Your task to perform on an android device: Show me popular games on the Play Store Image 0: 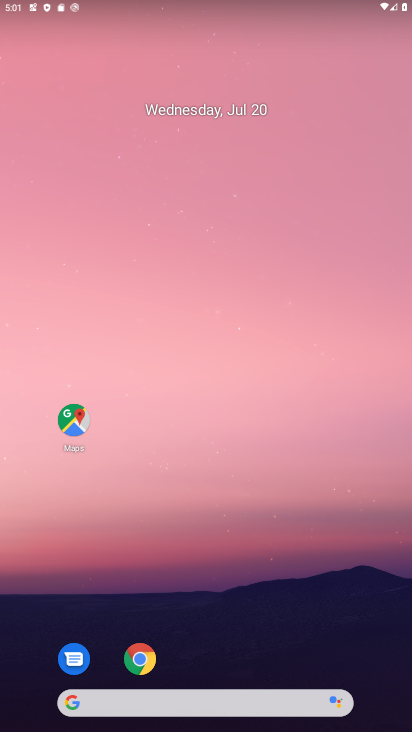
Step 0: drag from (231, 676) to (224, 320)
Your task to perform on an android device: Show me popular games on the Play Store Image 1: 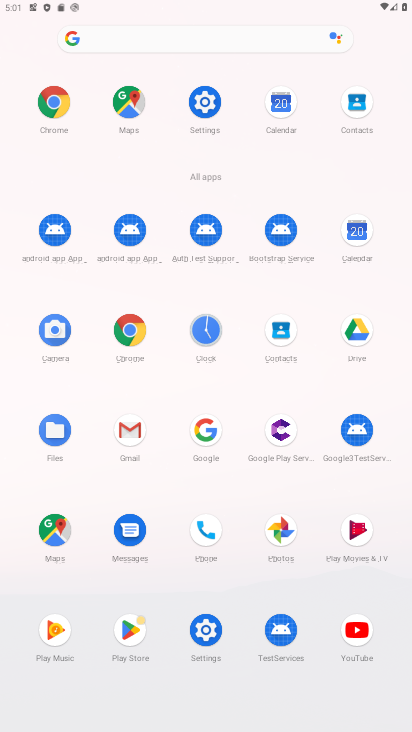
Step 1: click (137, 630)
Your task to perform on an android device: Show me popular games on the Play Store Image 2: 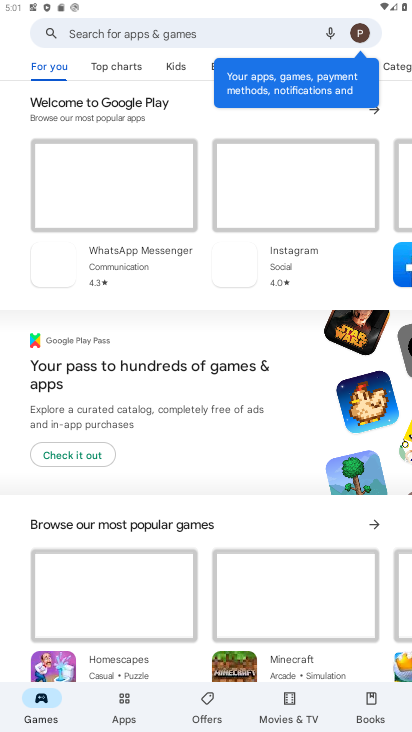
Step 2: click (111, 37)
Your task to perform on an android device: Show me popular games on the Play Store Image 3: 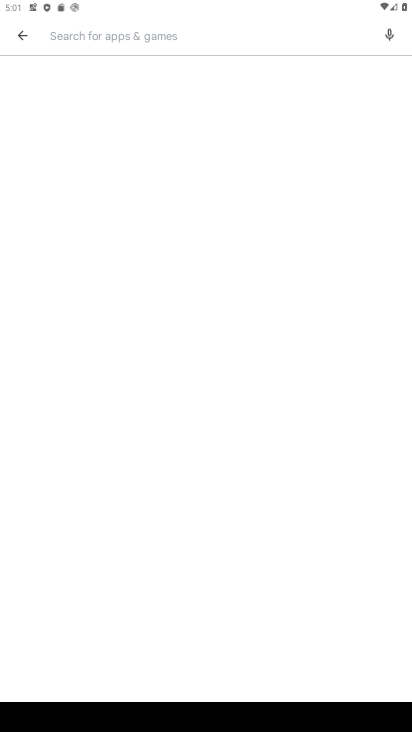
Step 3: type "popular games"
Your task to perform on an android device: Show me popular games on the Play Store Image 4: 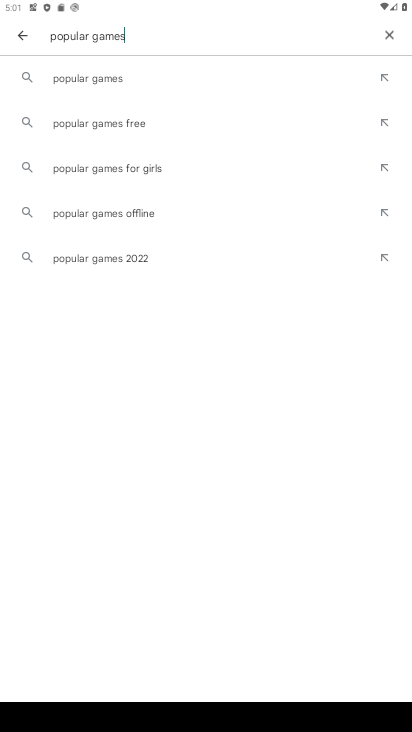
Step 4: click (104, 74)
Your task to perform on an android device: Show me popular games on the Play Store Image 5: 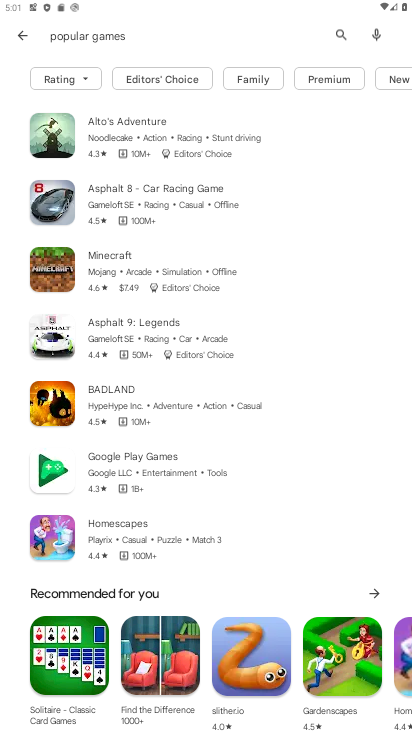
Step 5: task complete